Your task to perform on an android device: all mails in gmail Image 0: 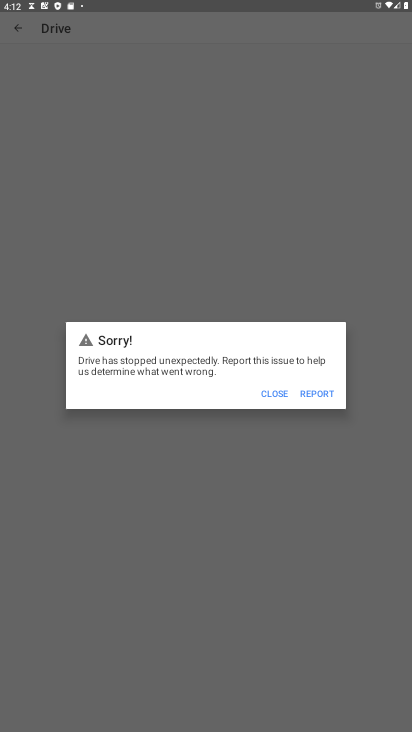
Step 0: press home button
Your task to perform on an android device: all mails in gmail Image 1: 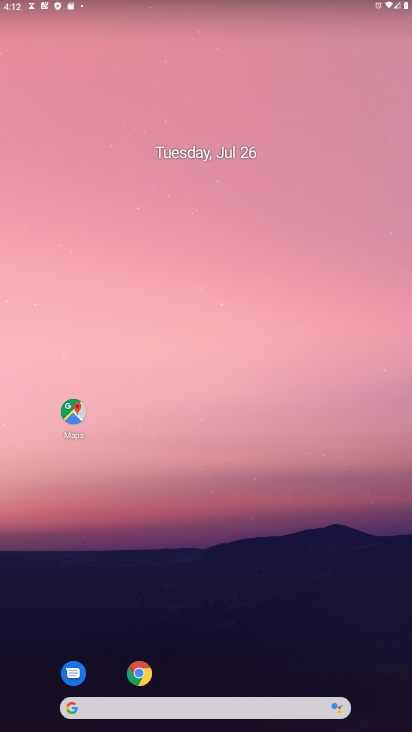
Step 1: drag from (201, 702) to (213, 264)
Your task to perform on an android device: all mails in gmail Image 2: 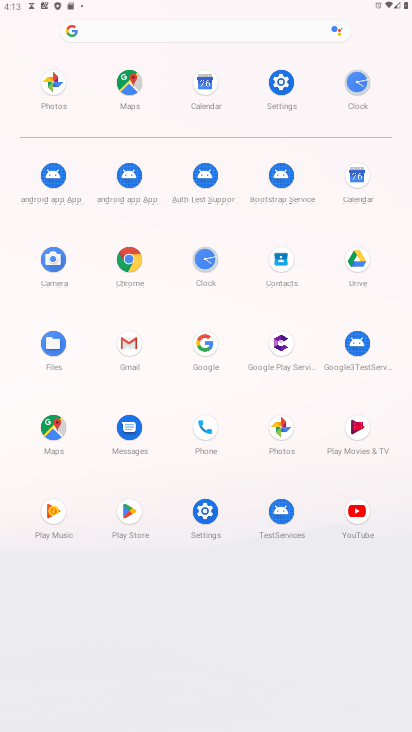
Step 2: click (129, 342)
Your task to perform on an android device: all mails in gmail Image 3: 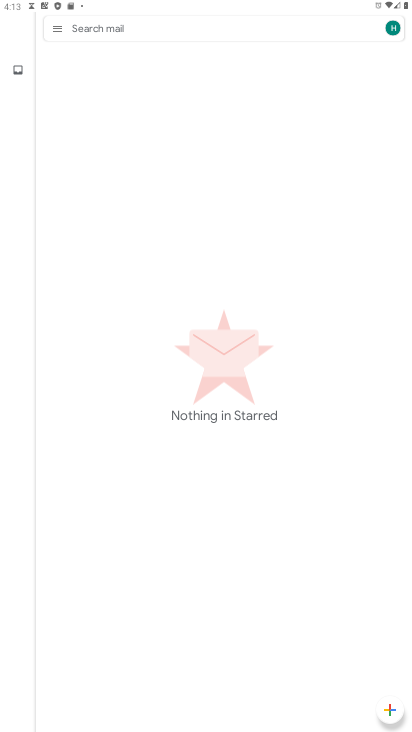
Step 3: click (57, 28)
Your task to perform on an android device: all mails in gmail Image 4: 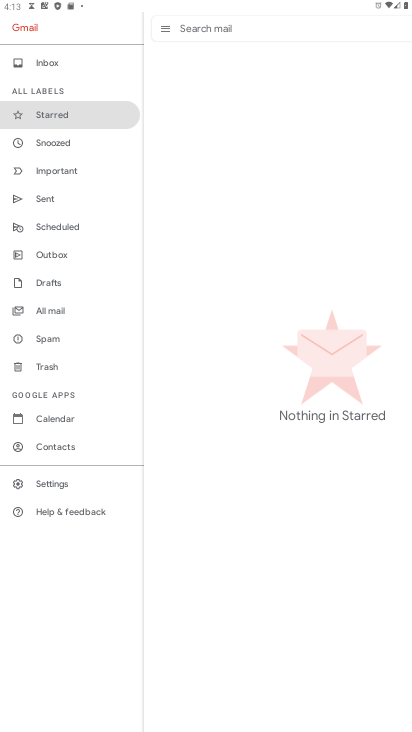
Step 4: click (54, 314)
Your task to perform on an android device: all mails in gmail Image 5: 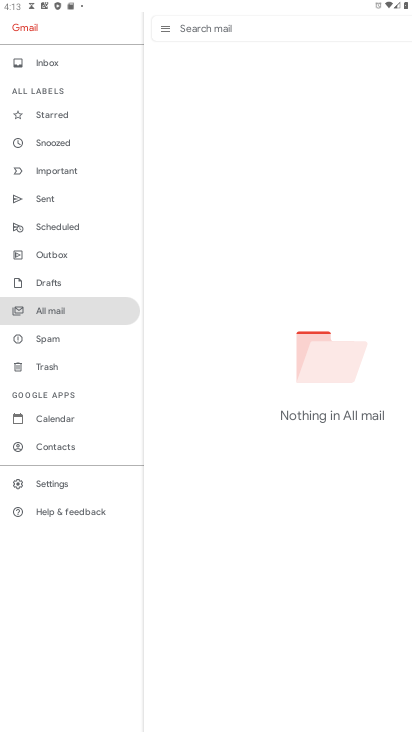
Step 5: task complete